Your task to perform on an android device: Show me recent news Image 0: 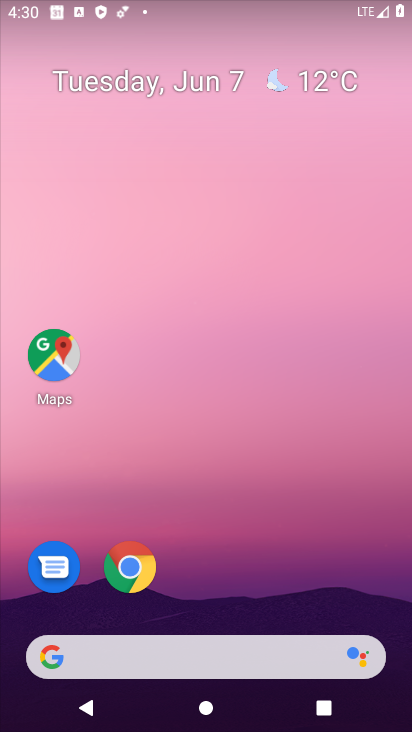
Step 0: drag from (204, 612) to (314, 23)
Your task to perform on an android device: Show me recent news Image 1: 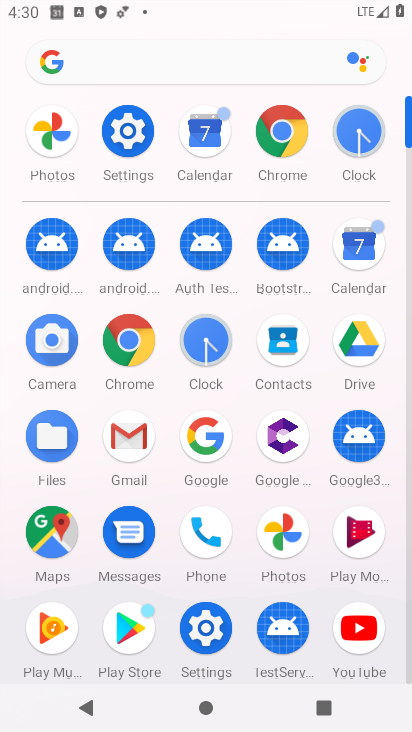
Step 1: click (112, 343)
Your task to perform on an android device: Show me recent news Image 2: 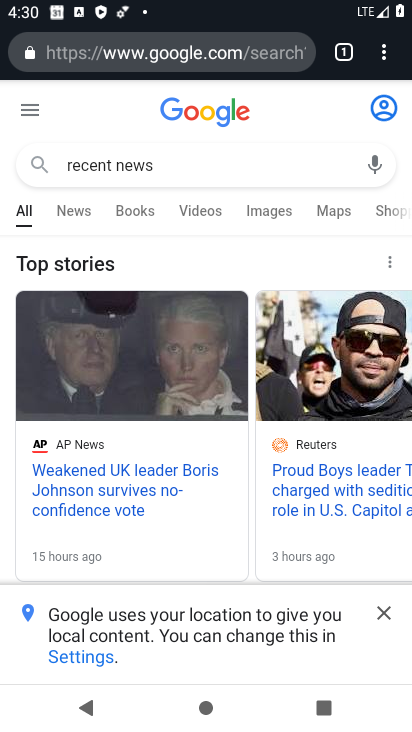
Step 2: task complete